Your task to perform on an android device: turn off smart reply in the gmail app Image 0: 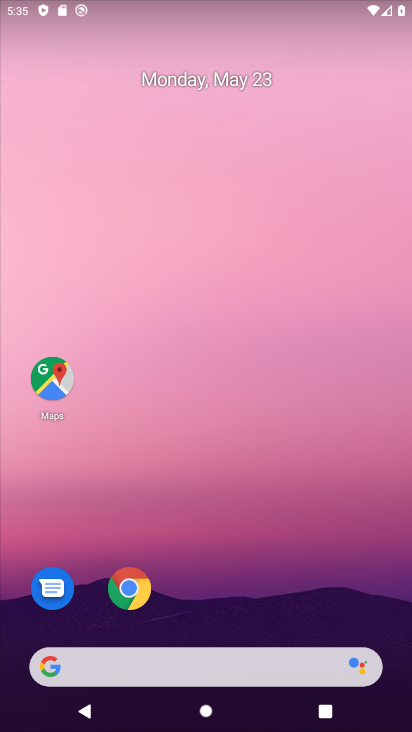
Step 0: drag from (252, 466) to (232, 3)
Your task to perform on an android device: turn off smart reply in the gmail app Image 1: 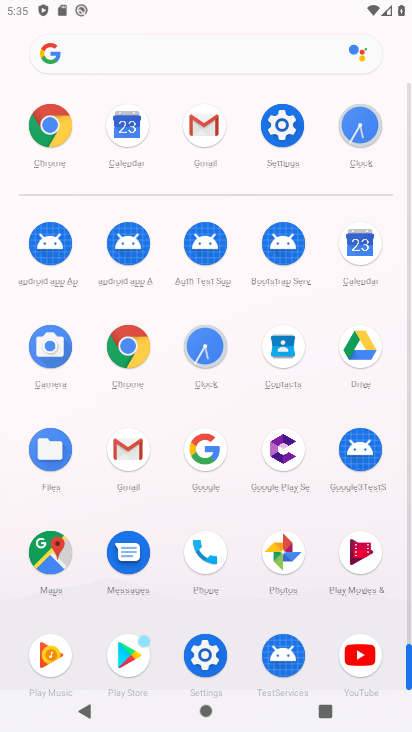
Step 1: drag from (19, 555) to (20, 196)
Your task to perform on an android device: turn off smart reply in the gmail app Image 2: 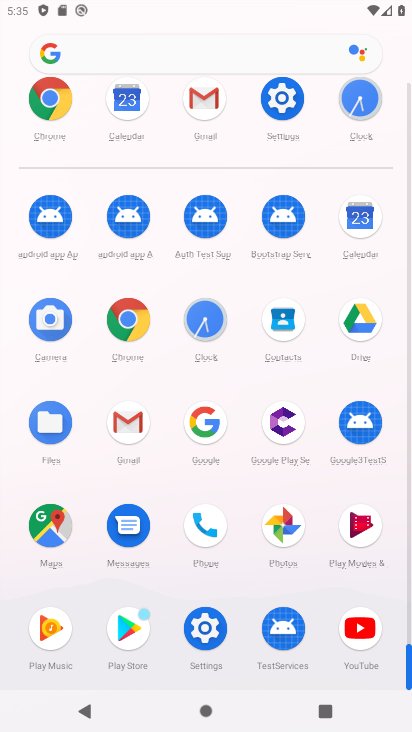
Step 2: drag from (20, 440) to (7, 170)
Your task to perform on an android device: turn off smart reply in the gmail app Image 3: 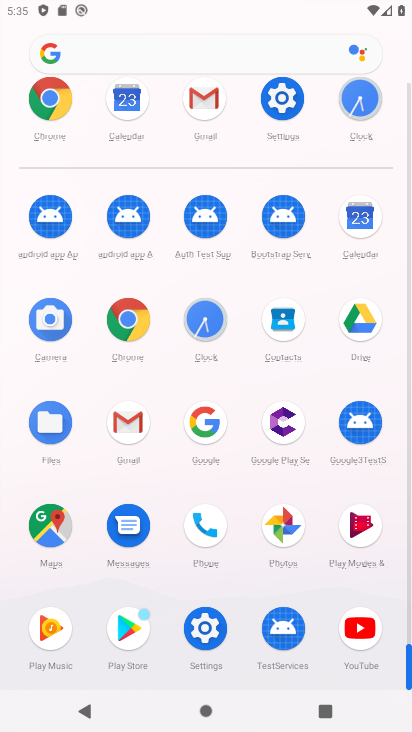
Step 3: click (127, 419)
Your task to perform on an android device: turn off smart reply in the gmail app Image 4: 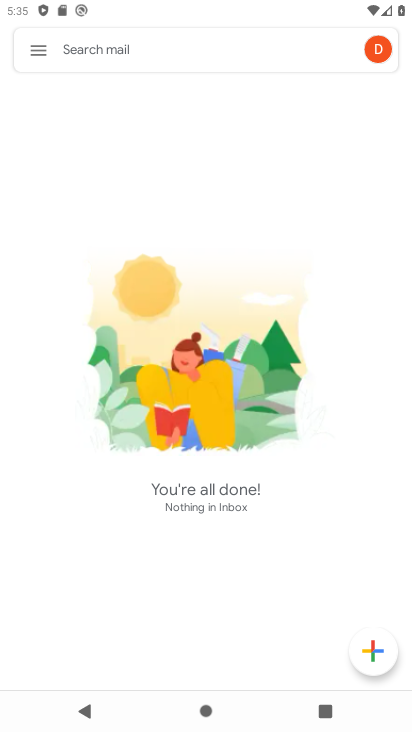
Step 4: click (35, 45)
Your task to perform on an android device: turn off smart reply in the gmail app Image 5: 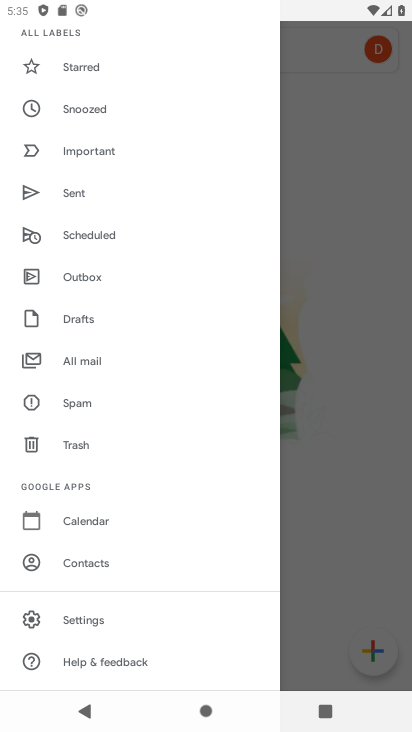
Step 5: click (96, 620)
Your task to perform on an android device: turn off smart reply in the gmail app Image 6: 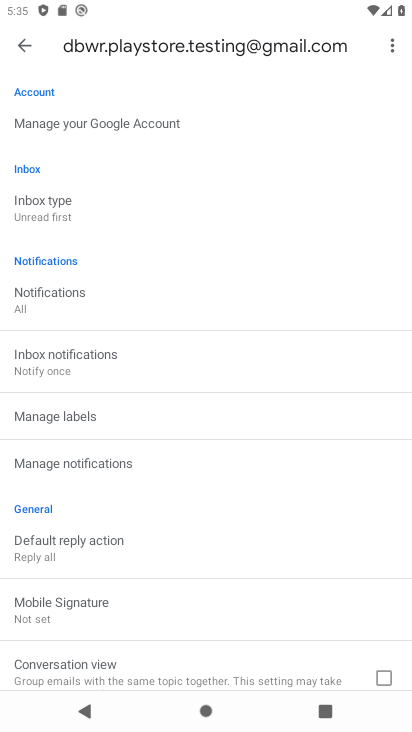
Step 6: drag from (220, 588) to (231, 145)
Your task to perform on an android device: turn off smart reply in the gmail app Image 7: 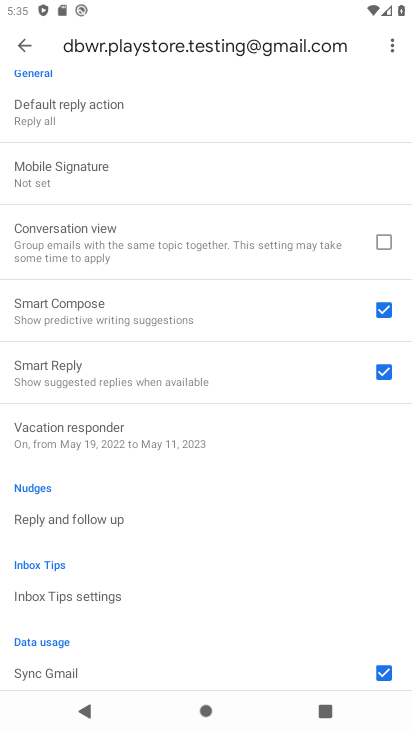
Step 7: drag from (235, 564) to (254, 161)
Your task to perform on an android device: turn off smart reply in the gmail app Image 8: 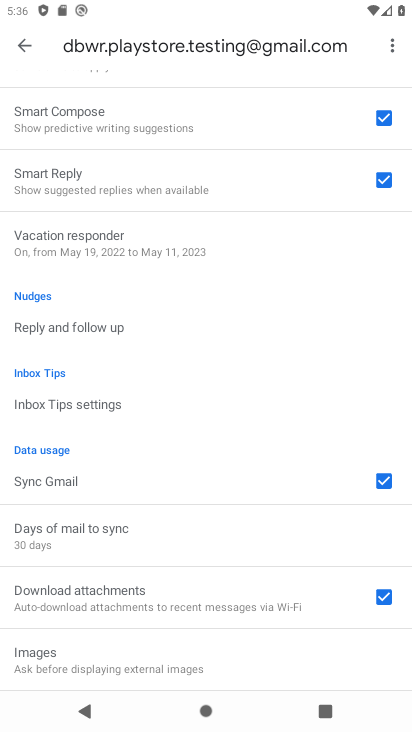
Step 8: click (379, 176)
Your task to perform on an android device: turn off smart reply in the gmail app Image 9: 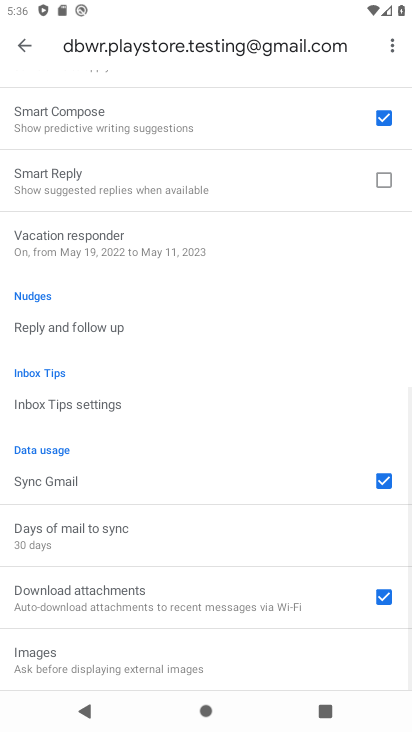
Step 9: task complete